Your task to perform on an android device: star an email in the gmail app Image 0: 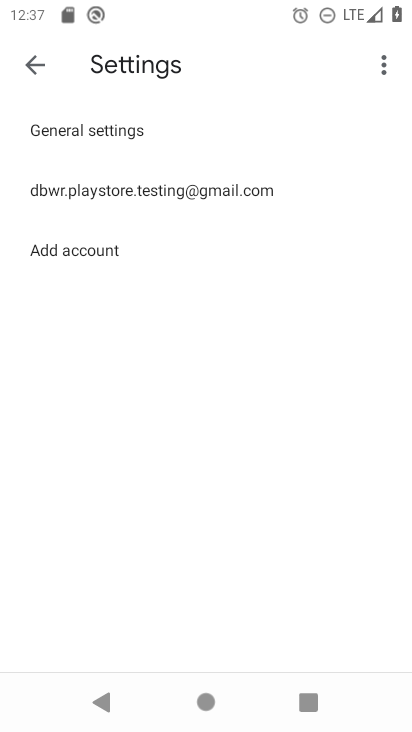
Step 0: press home button
Your task to perform on an android device: star an email in the gmail app Image 1: 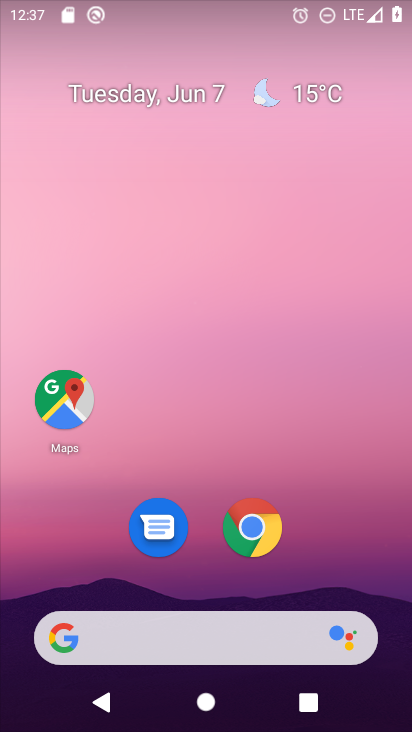
Step 1: drag from (365, 577) to (369, 115)
Your task to perform on an android device: star an email in the gmail app Image 2: 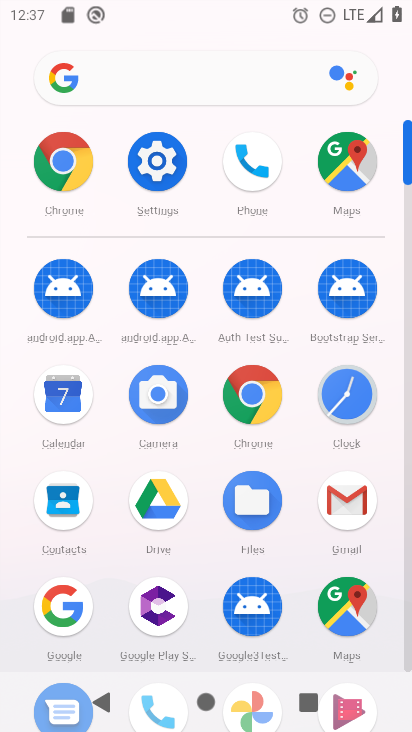
Step 2: click (354, 503)
Your task to perform on an android device: star an email in the gmail app Image 3: 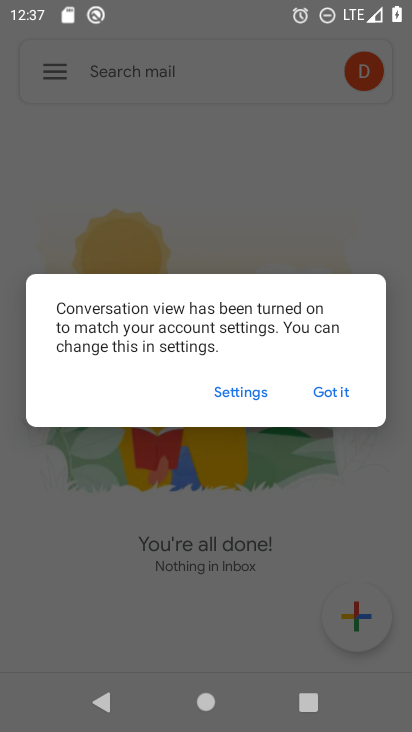
Step 3: click (316, 401)
Your task to perform on an android device: star an email in the gmail app Image 4: 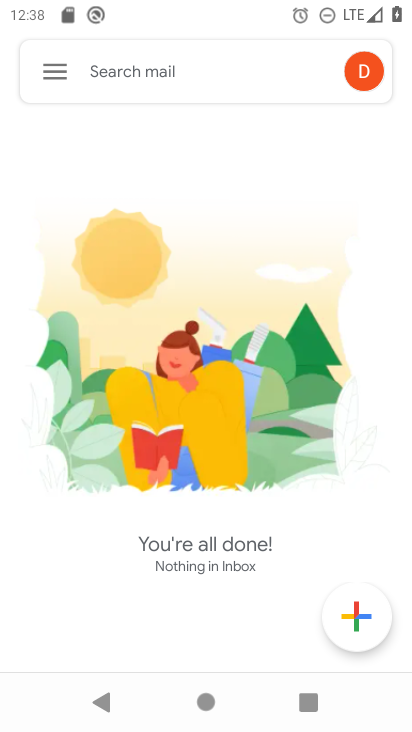
Step 4: task complete